Your task to perform on an android device: turn off sleep mode Image 0: 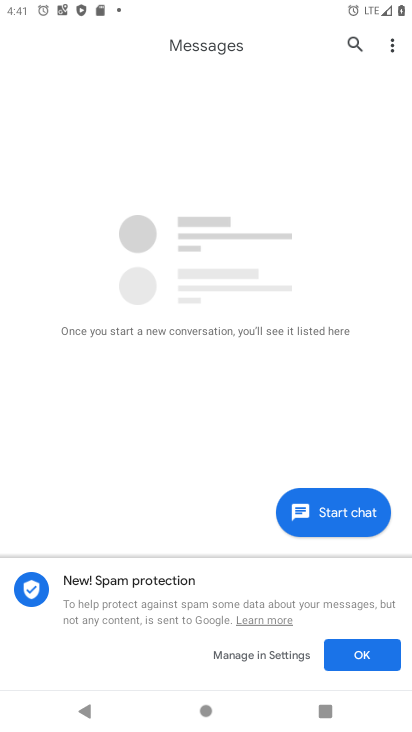
Step 0: press home button
Your task to perform on an android device: turn off sleep mode Image 1: 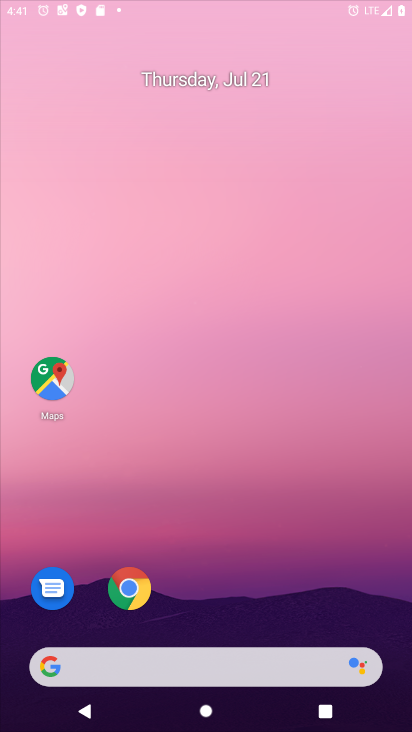
Step 1: drag from (201, 580) to (234, 200)
Your task to perform on an android device: turn off sleep mode Image 2: 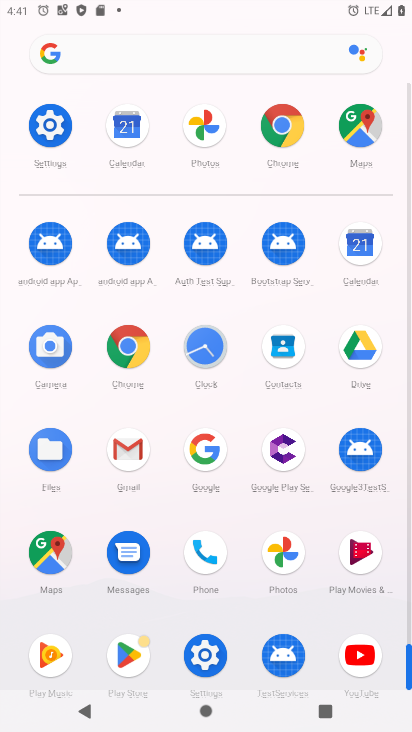
Step 2: click (193, 645)
Your task to perform on an android device: turn off sleep mode Image 3: 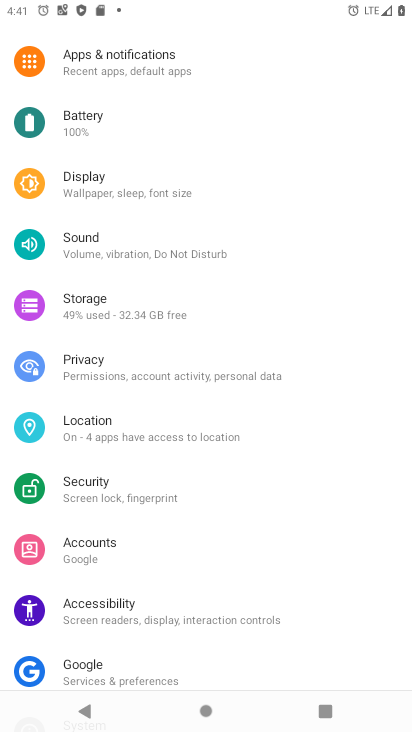
Step 3: click (98, 196)
Your task to perform on an android device: turn off sleep mode Image 4: 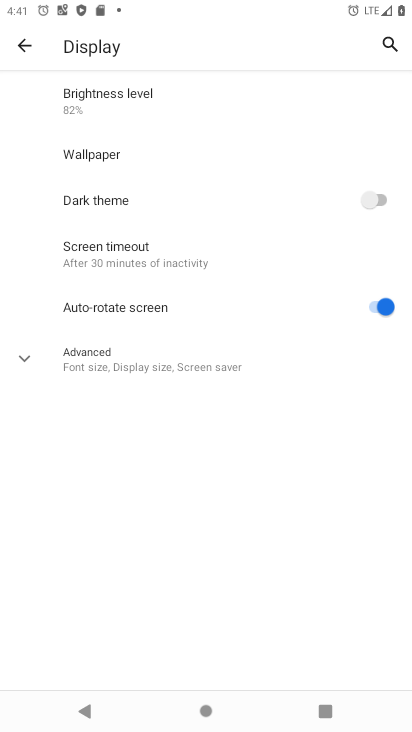
Step 4: task complete